Your task to perform on an android device: check out phone information Image 0: 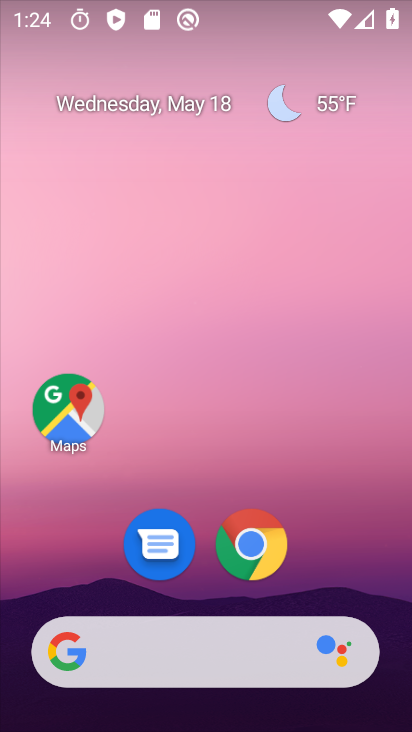
Step 0: drag from (337, 571) to (281, 149)
Your task to perform on an android device: check out phone information Image 1: 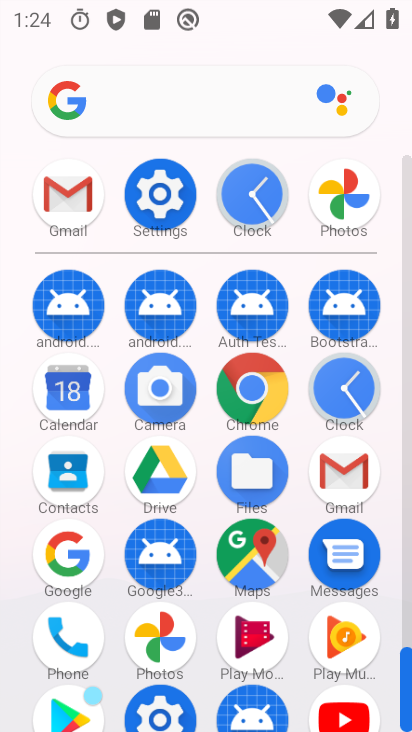
Step 1: click (167, 181)
Your task to perform on an android device: check out phone information Image 2: 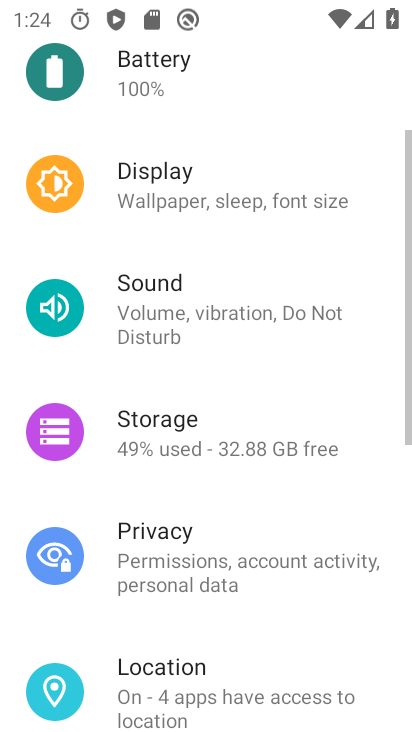
Step 2: drag from (229, 630) to (208, 251)
Your task to perform on an android device: check out phone information Image 3: 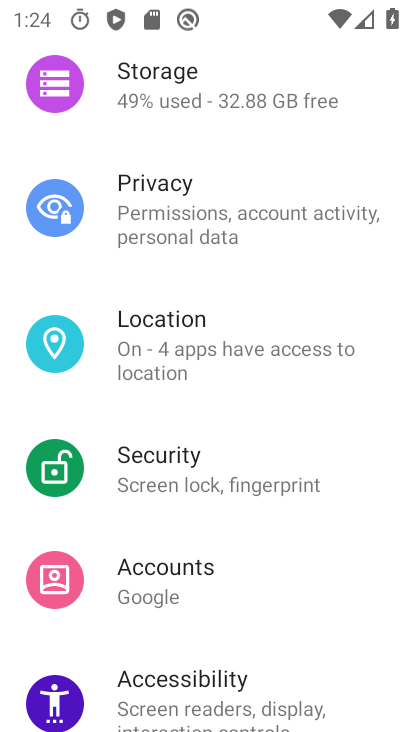
Step 3: drag from (288, 652) to (251, 355)
Your task to perform on an android device: check out phone information Image 4: 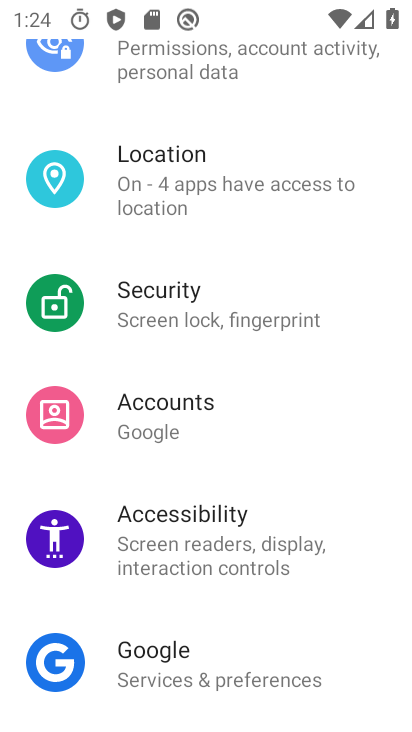
Step 4: drag from (293, 636) to (289, 297)
Your task to perform on an android device: check out phone information Image 5: 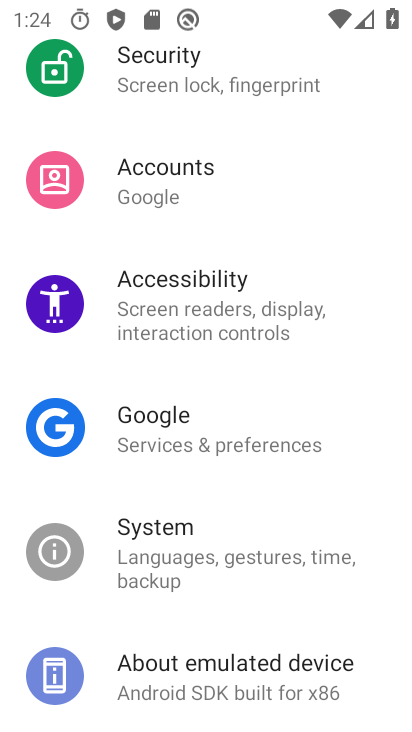
Step 5: click (219, 672)
Your task to perform on an android device: check out phone information Image 6: 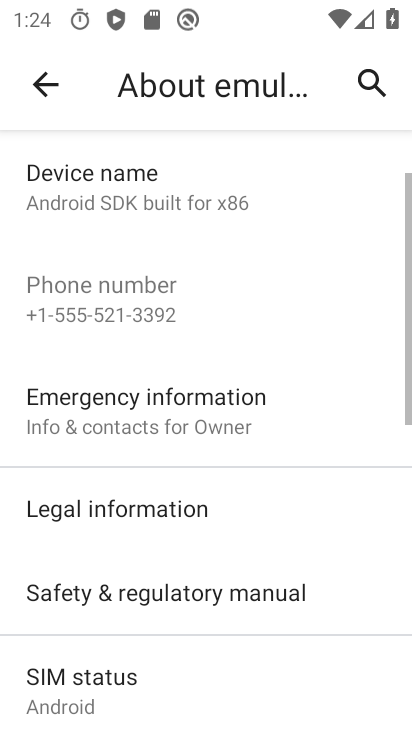
Step 6: click (219, 672)
Your task to perform on an android device: check out phone information Image 7: 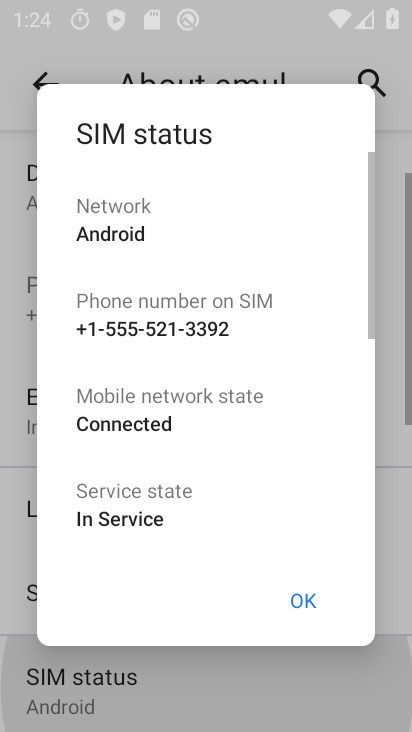
Step 7: drag from (219, 672) to (253, 365)
Your task to perform on an android device: check out phone information Image 8: 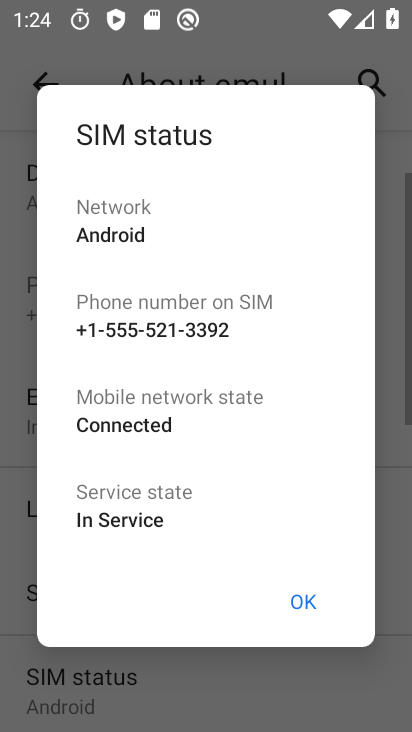
Step 8: click (305, 610)
Your task to perform on an android device: check out phone information Image 9: 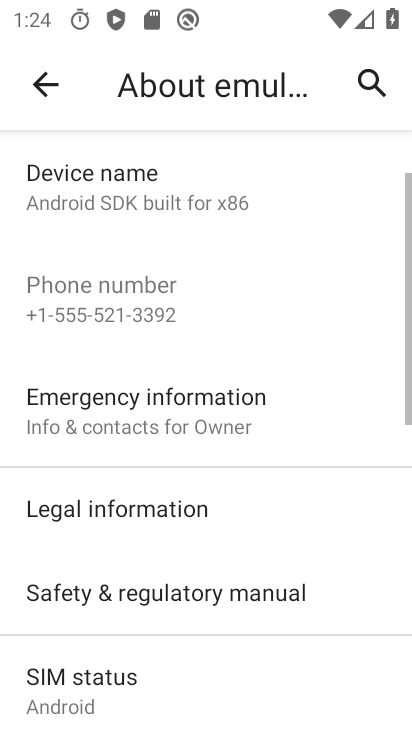
Step 9: drag from (282, 680) to (304, 396)
Your task to perform on an android device: check out phone information Image 10: 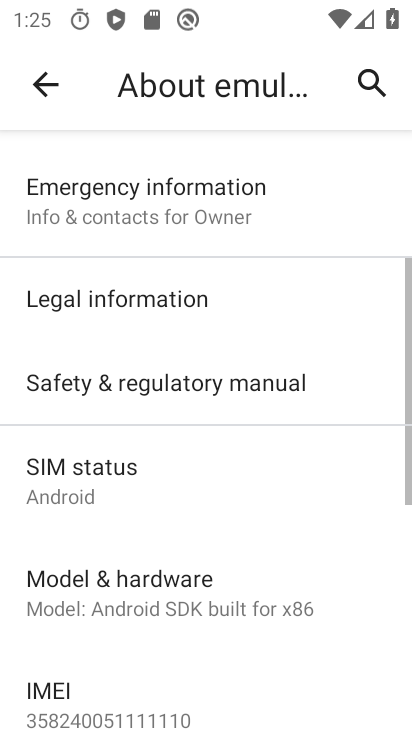
Step 10: click (224, 605)
Your task to perform on an android device: check out phone information Image 11: 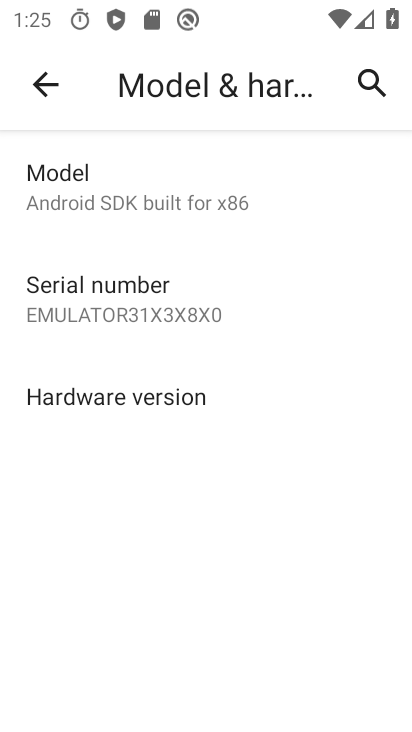
Step 11: task complete